Your task to perform on an android device: toggle wifi Image 0: 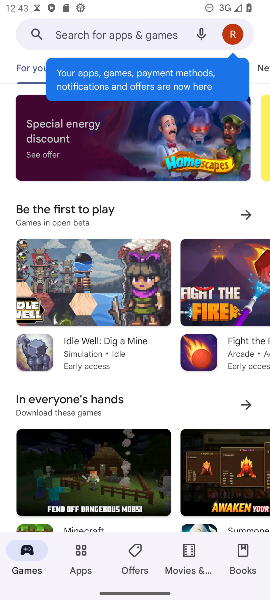
Step 0: press back button
Your task to perform on an android device: toggle wifi Image 1: 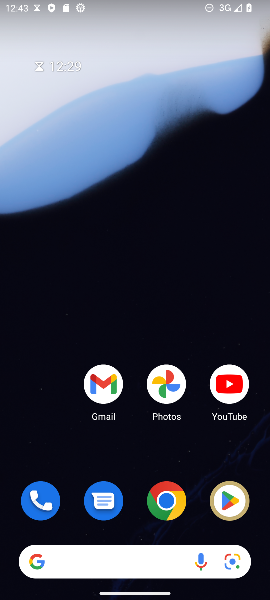
Step 1: drag from (131, 529) to (131, 206)
Your task to perform on an android device: toggle wifi Image 2: 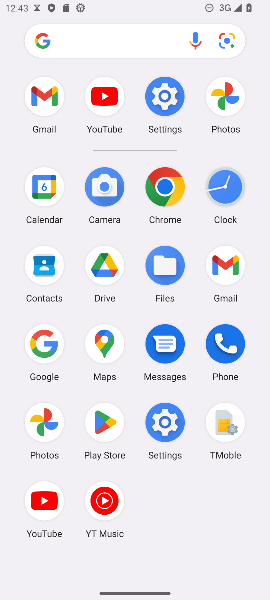
Step 2: click (161, 420)
Your task to perform on an android device: toggle wifi Image 3: 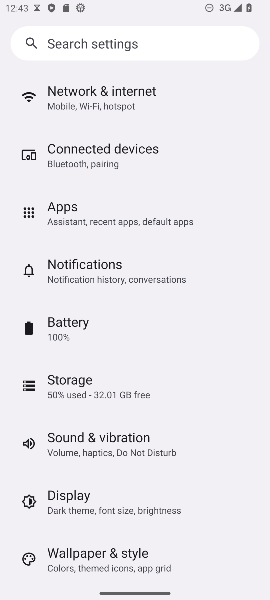
Step 3: click (91, 99)
Your task to perform on an android device: toggle wifi Image 4: 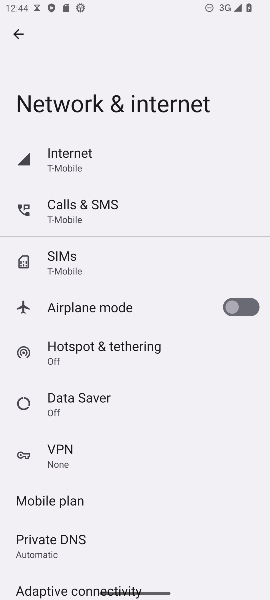
Step 4: click (72, 160)
Your task to perform on an android device: toggle wifi Image 5: 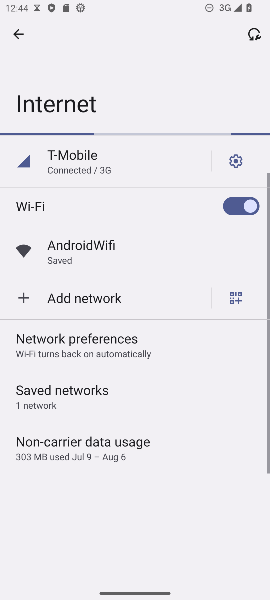
Step 5: click (226, 203)
Your task to perform on an android device: toggle wifi Image 6: 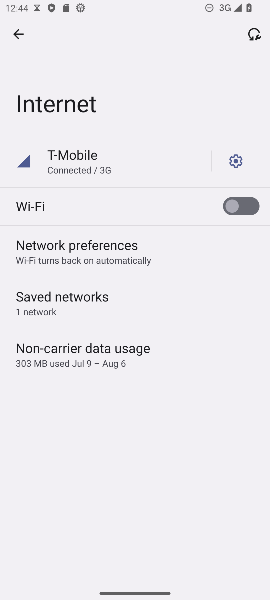
Step 6: task complete